Your task to perform on an android device: Find coffee shops on Maps Image 0: 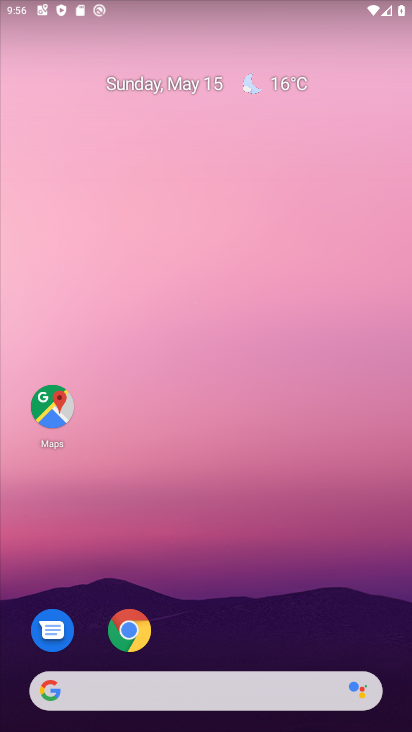
Step 0: click (54, 409)
Your task to perform on an android device: Find coffee shops on Maps Image 1: 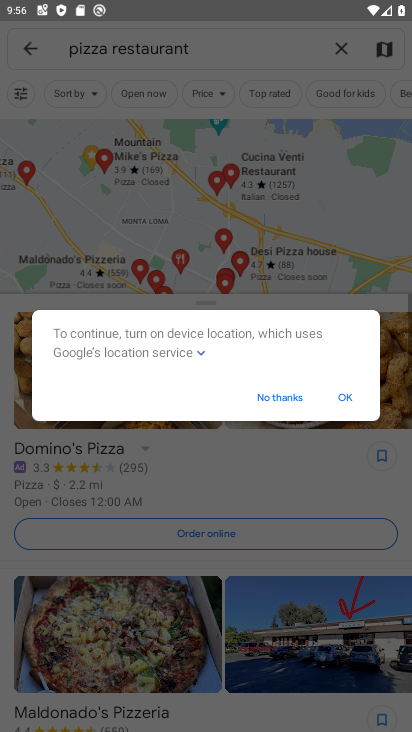
Step 1: click (329, 41)
Your task to perform on an android device: Find coffee shops on Maps Image 2: 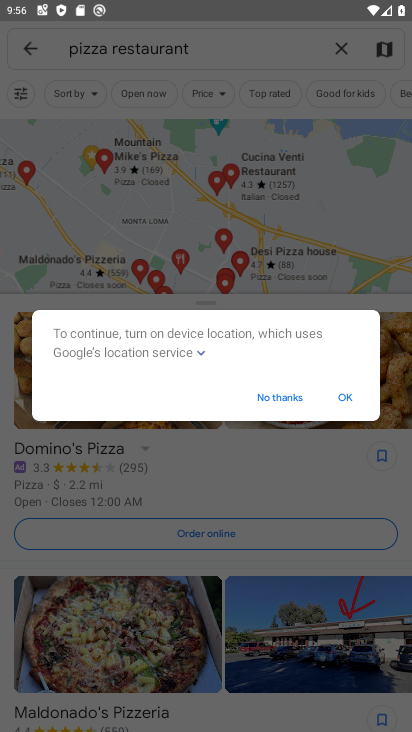
Step 2: click (342, 389)
Your task to perform on an android device: Find coffee shops on Maps Image 3: 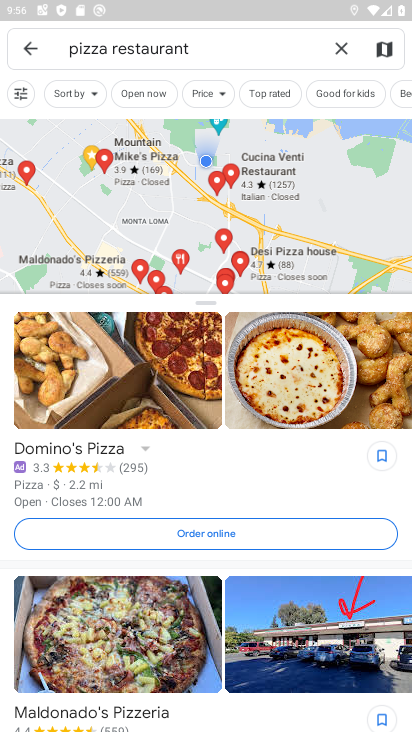
Step 3: click (337, 49)
Your task to perform on an android device: Find coffee shops on Maps Image 4: 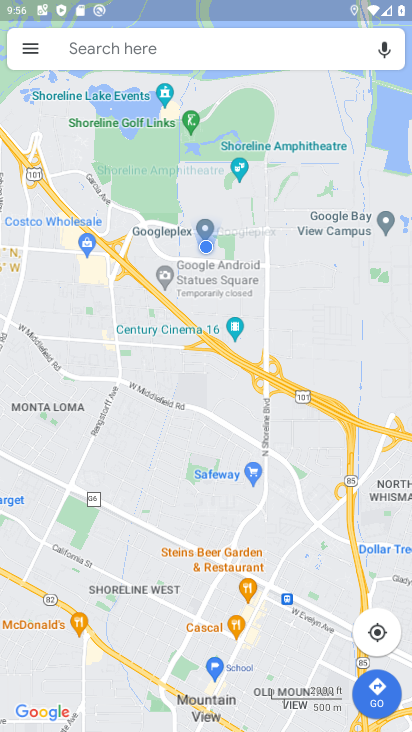
Step 4: click (193, 40)
Your task to perform on an android device: Find coffee shops on Maps Image 5: 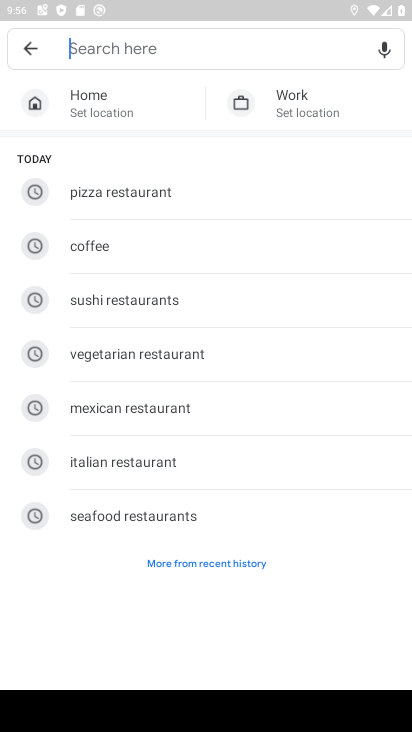
Step 5: type "coffee shops"
Your task to perform on an android device: Find coffee shops on Maps Image 6: 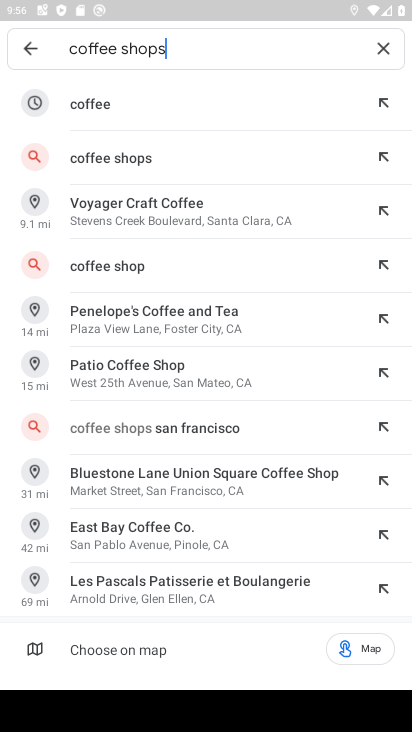
Step 6: click (149, 165)
Your task to perform on an android device: Find coffee shops on Maps Image 7: 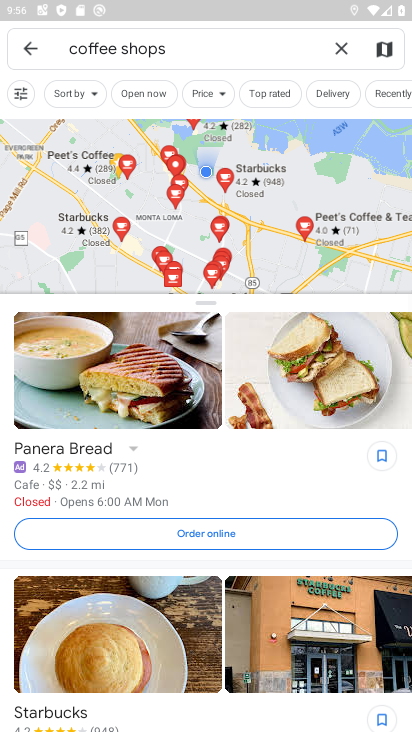
Step 7: task complete